Your task to perform on an android device: Clear the cart on amazon. Add beats solo 3 to the cart on amazon Image 0: 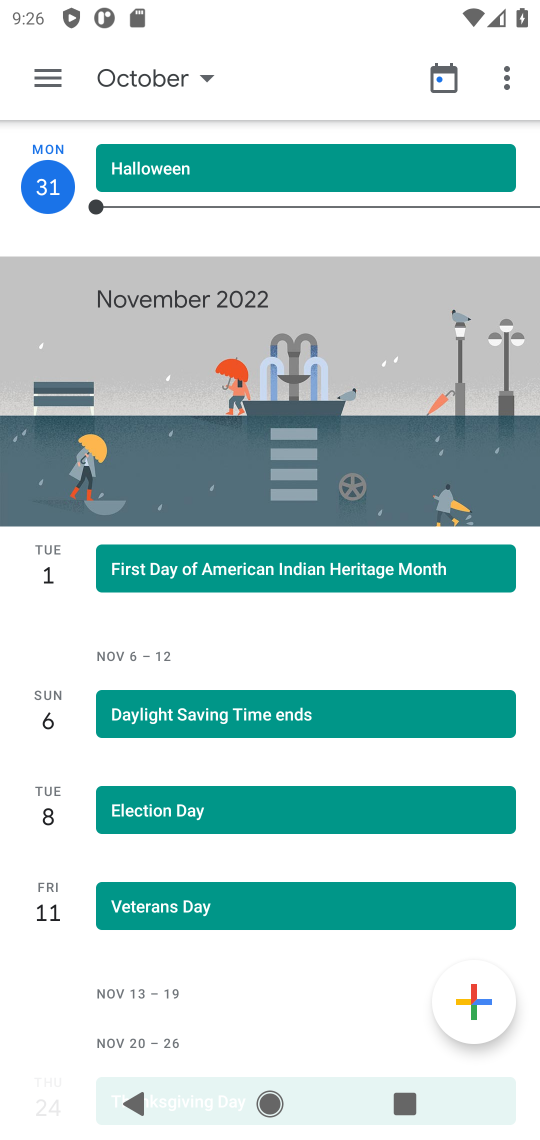
Step 0: press home button
Your task to perform on an android device: Clear the cart on amazon. Add beats solo 3 to the cart on amazon Image 1: 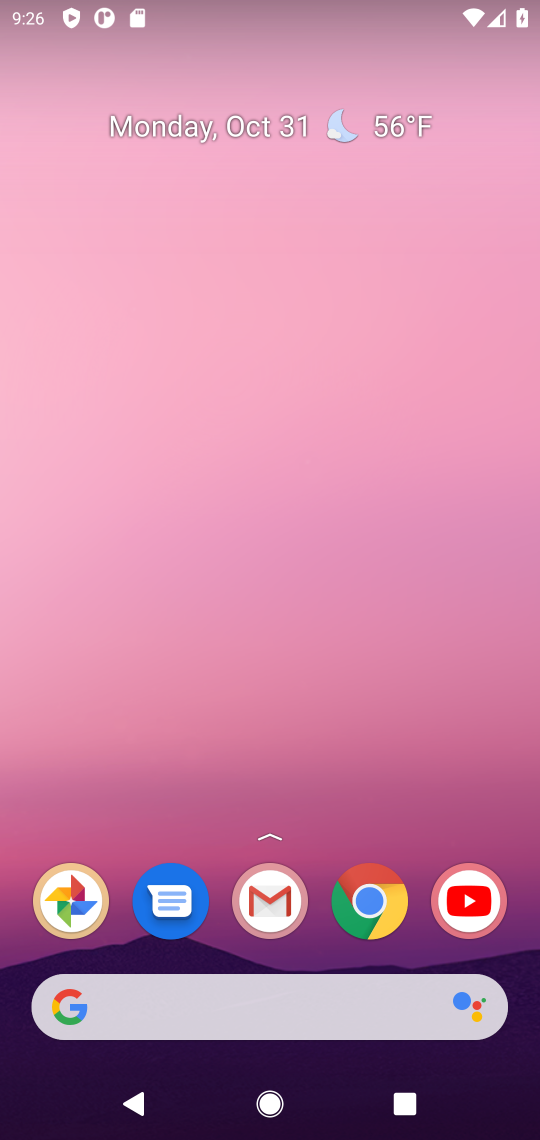
Step 1: drag from (218, 739) to (193, 351)
Your task to perform on an android device: Clear the cart on amazon. Add beats solo 3 to the cart on amazon Image 2: 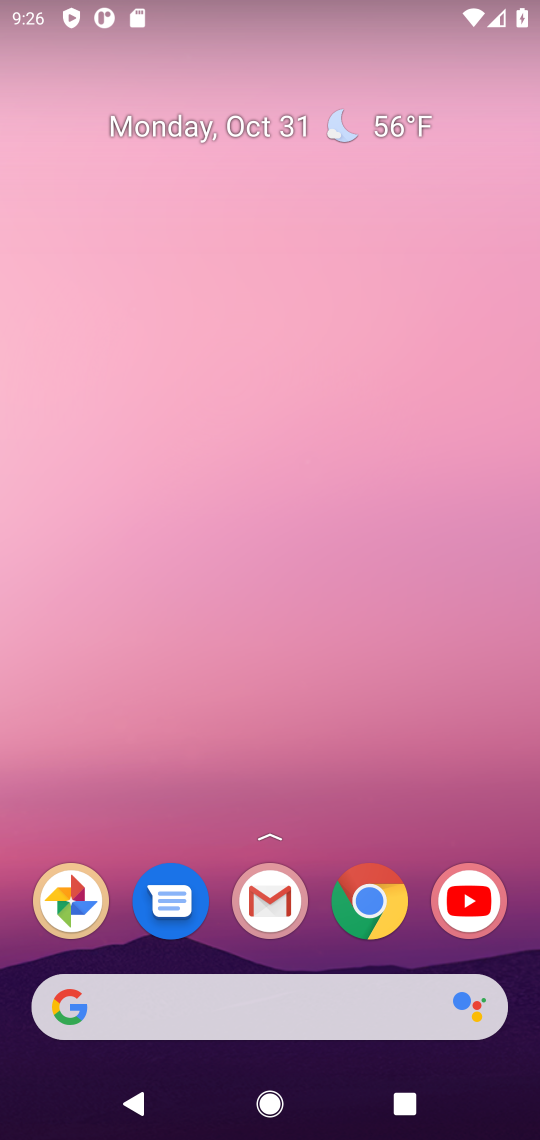
Step 2: drag from (209, 956) to (152, 285)
Your task to perform on an android device: Clear the cart on amazon. Add beats solo 3 to the cart on amazon Image 3: 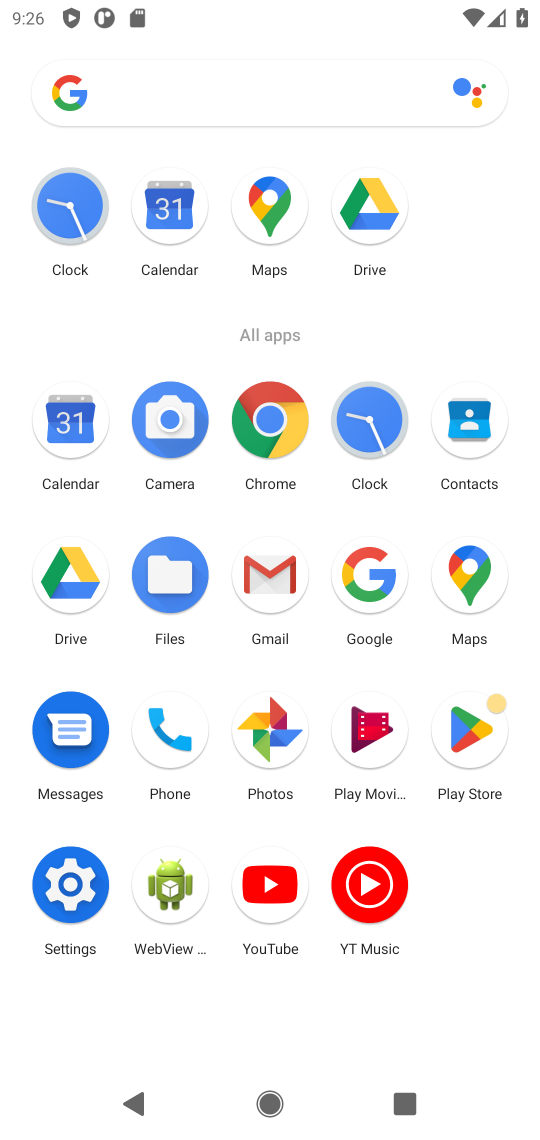
Step 3: click (373, 555)
Your task to perform on an android device: Clear the cart on amazon. Add beats solo 3 to the cart on amazon Image 4: 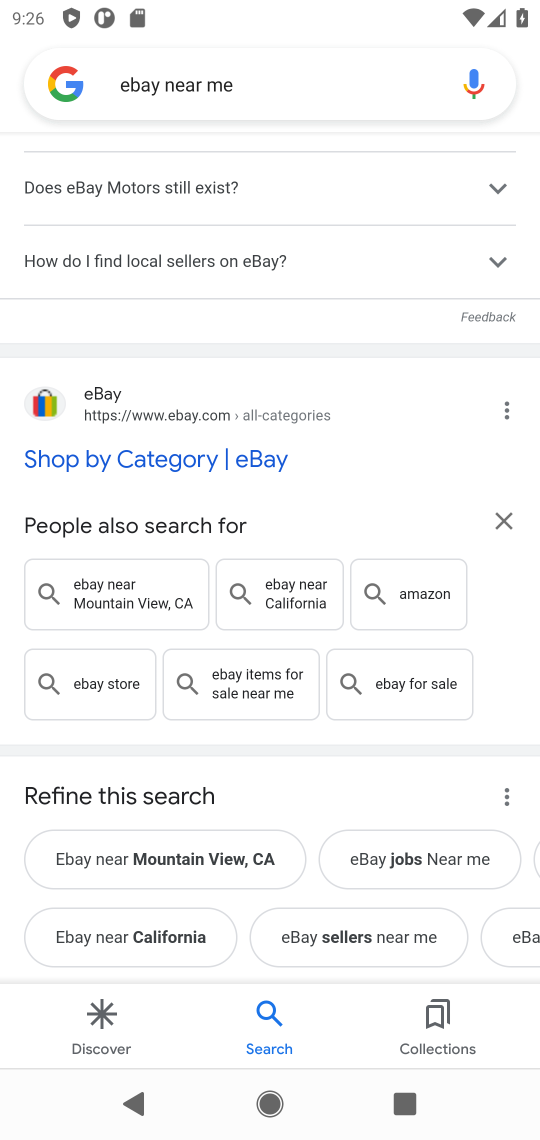
Step 4: click (179, 88)
Your task to perform on an android device: Clear the cart on amazon. Add beats solo 3 to the cart on amazon Image 5: 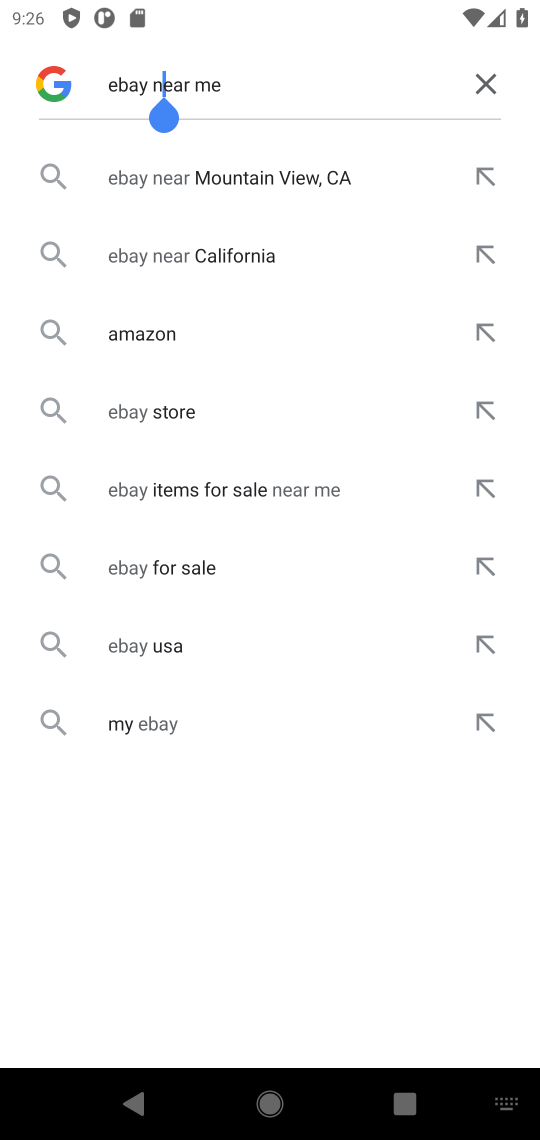
Step 5: click (467, 80)
Your task to perform on an android device: Clear the cart on amazon. Add beats solo 3 to the cart on amazon Image 6: 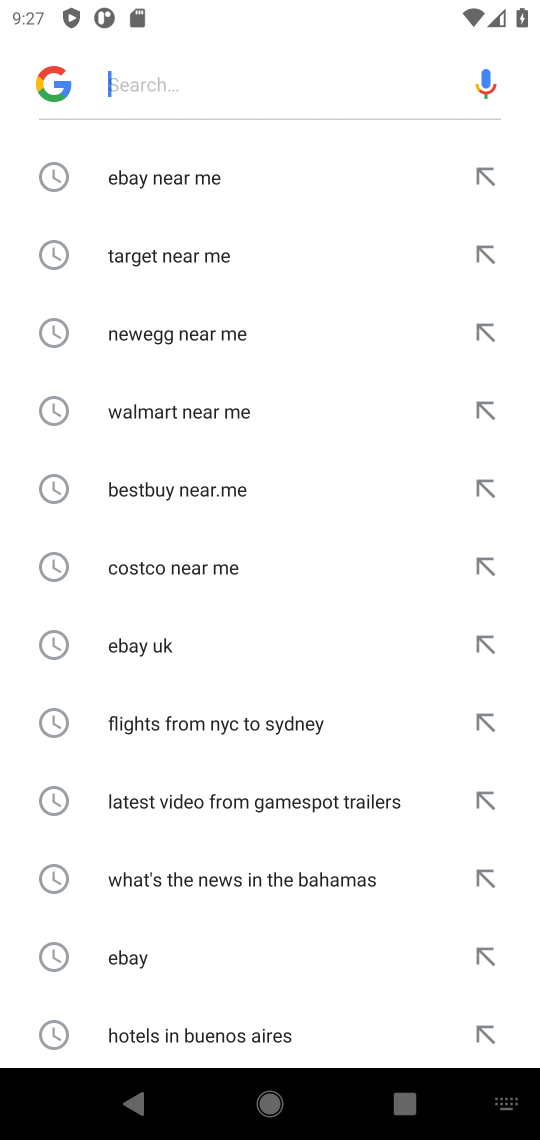
Step 6: click (183, 79)
Your task to perform on an android device: Clear the cart on amazon. Add beats solo 3 to the cart on amazon Image 7: 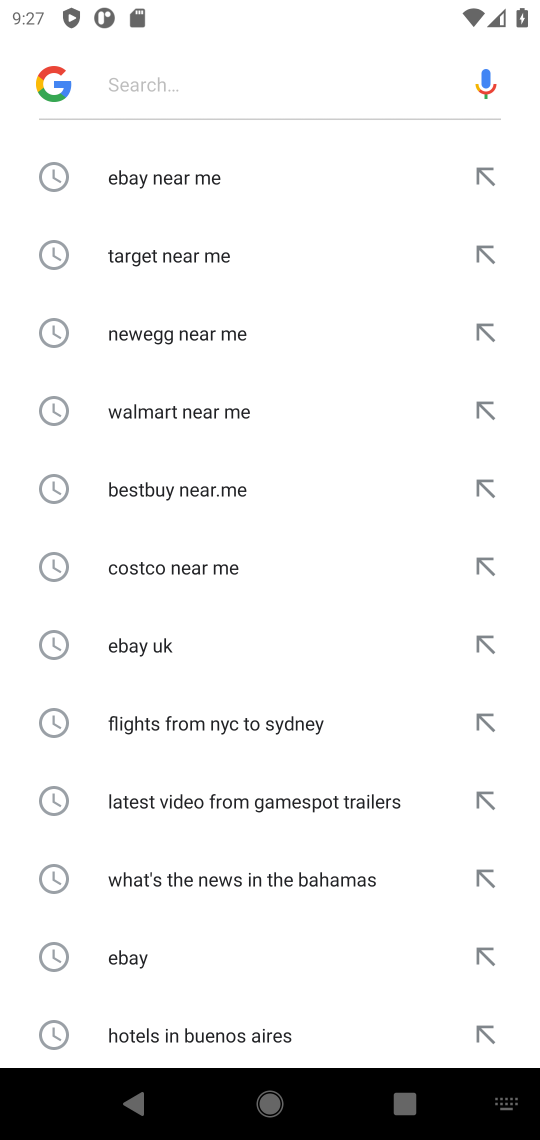
Step 7: type "amazon "
Your task to perform on an android device: Clear the cart on amazon. Add beats solo 3 to the cart on amazon Image 8: 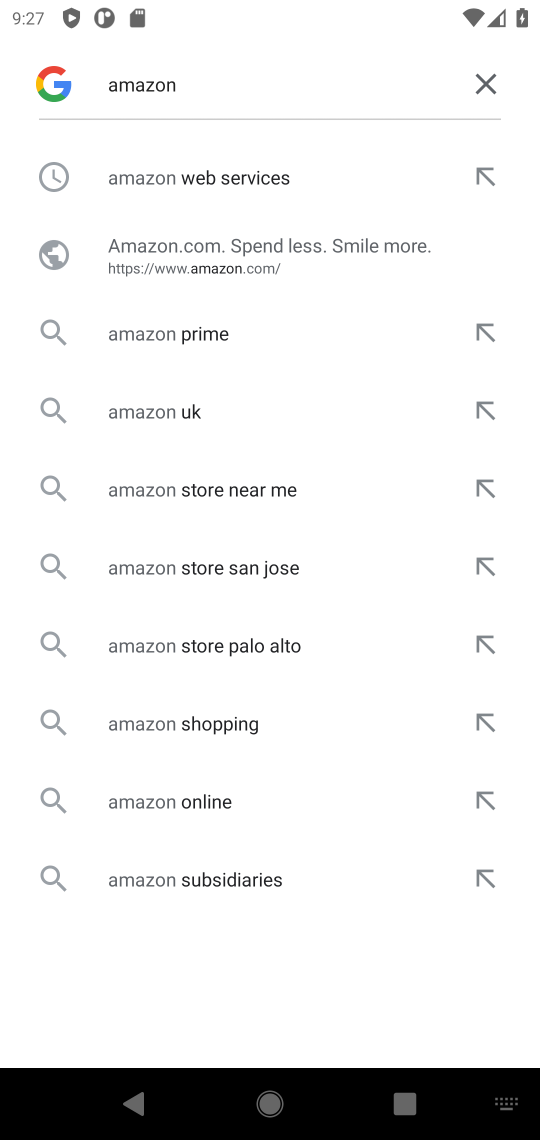
Step 8: click (142, 173)
Your task to perform on an android device: Clear the cart on amazon. Add beats solo 3 to the cart on amazon Image 9: 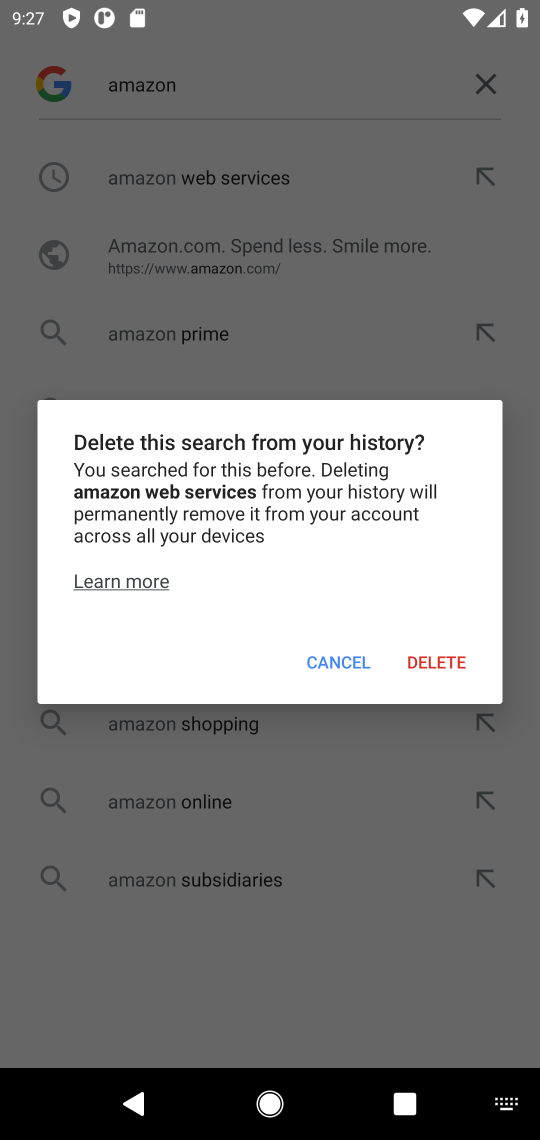
Step 9: click (328, 665)
Your task to perform on an android device: Clear the cart on amazon. Add beats solo 3 to the cart on amazon Image 10: 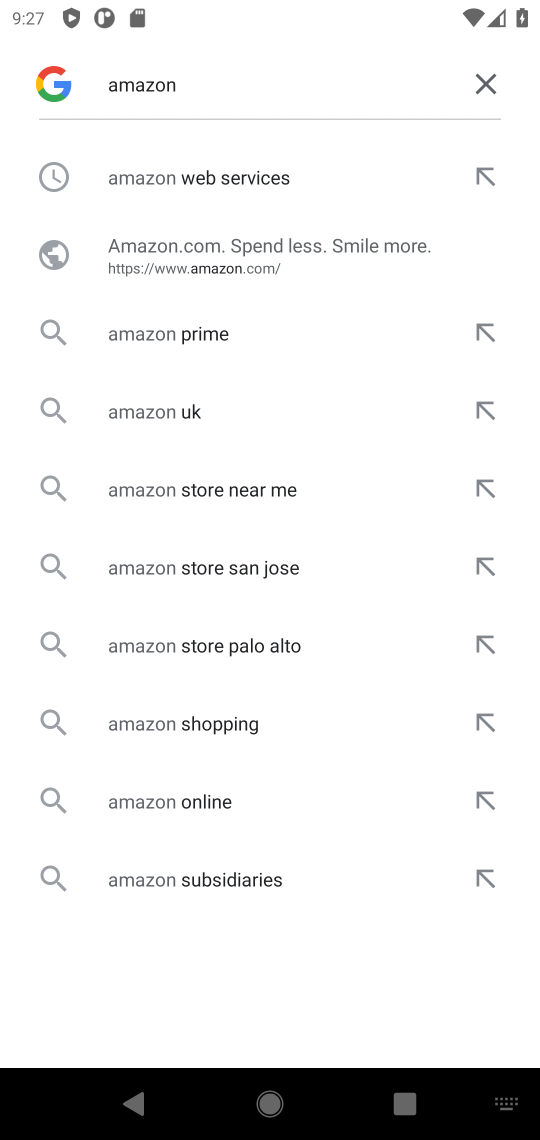
Step 10: click (178, 416)
Your task to perform on an android device: Clear the cart on amazon. Add beats solo 3 to the cart on amazon Image 11: 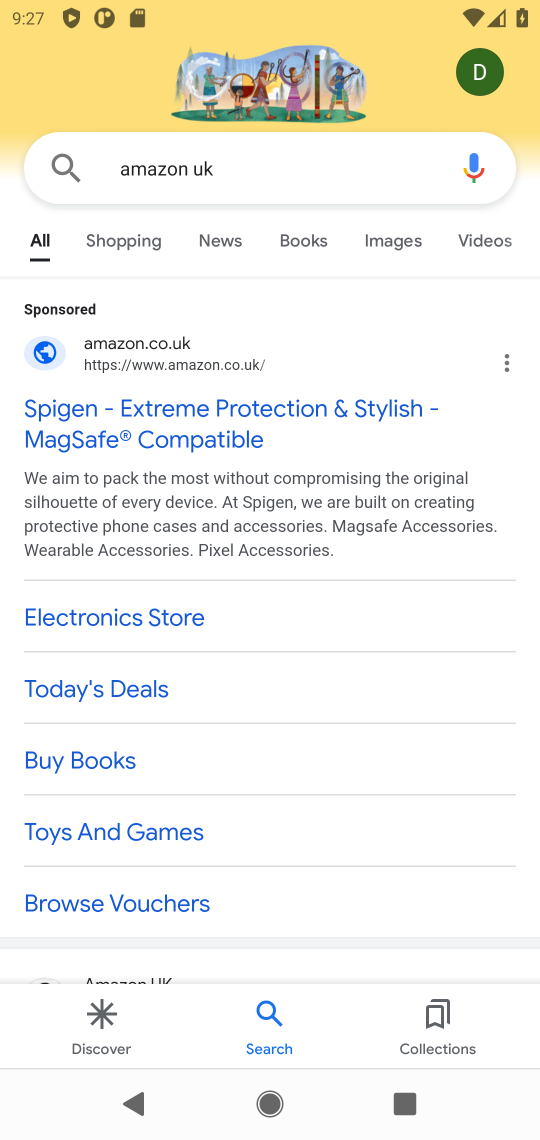
Step 11: drag from (328, 866) to (328, 231)
Your task to perform on an android device: Clear the cart on amazon. Add beats solo 3 to the cart on amazon Image 12: 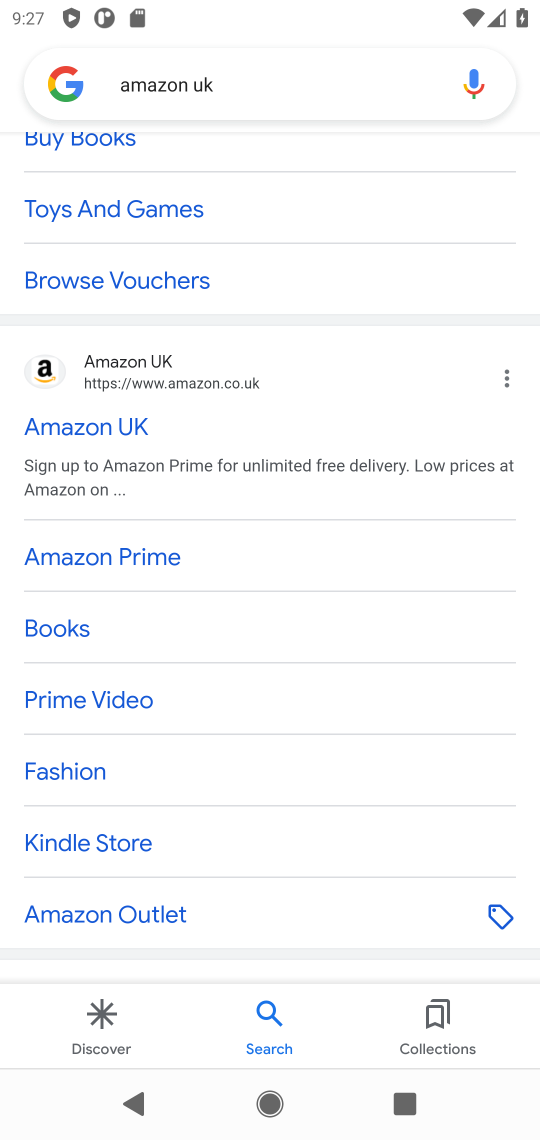
Step 12: click (38, 357)
Your task to perform on an android device: Clear the cart on amazon. Add beats solo 3 to the cart on amazon Image 13: 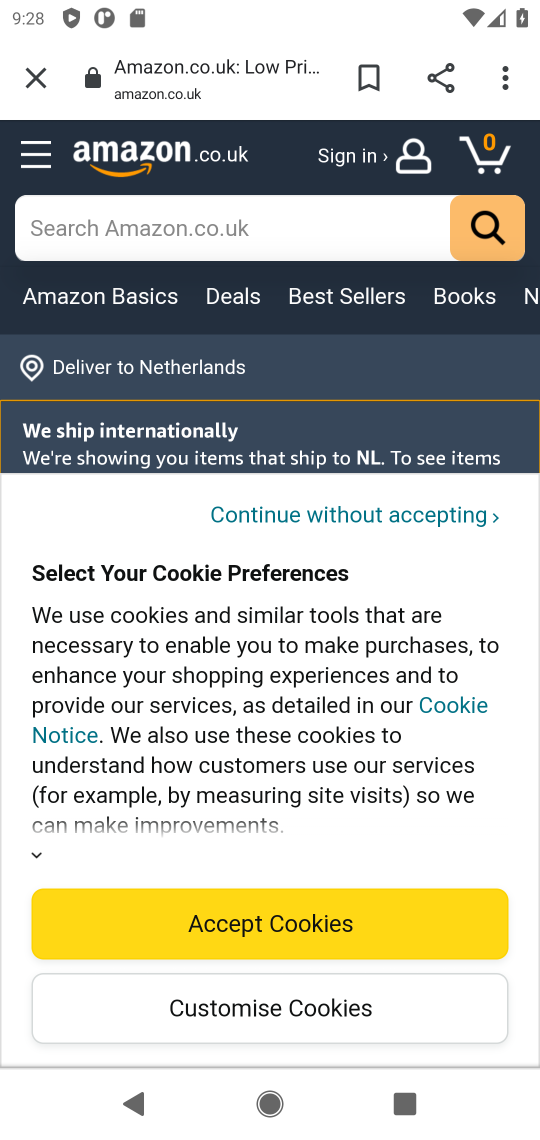
Step 13: click (264, 989)
Your task to perform on an android device: Clear the cart on amazon. Add beats solo 3 to the cart on amazon Image 14: 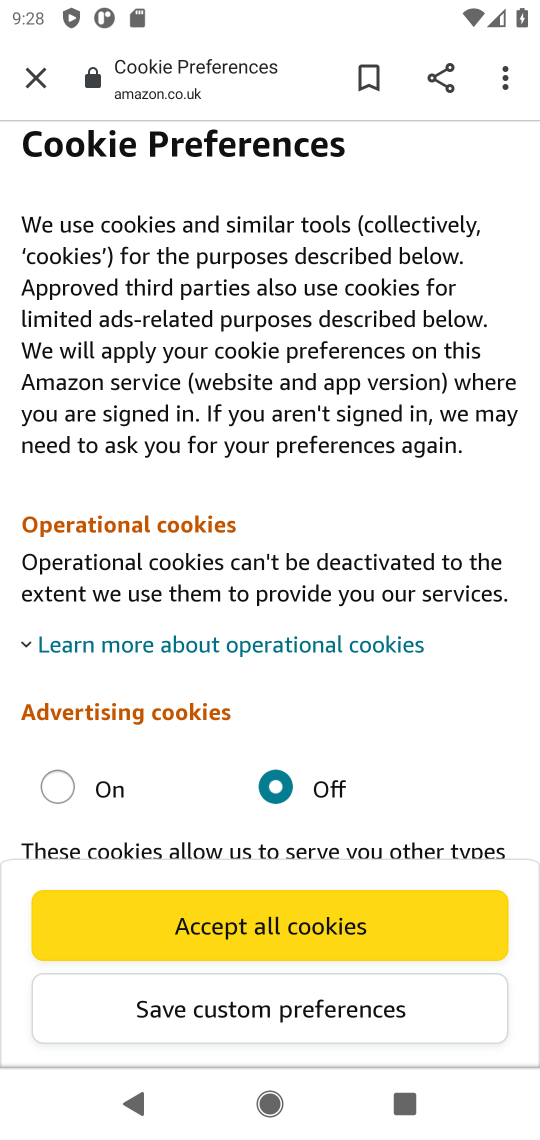
Step 14: click (35, 87)
Your task to perform on an android device: Clear the cart on amazon. Add beats solo 3 to the cart on amazon Image 15: 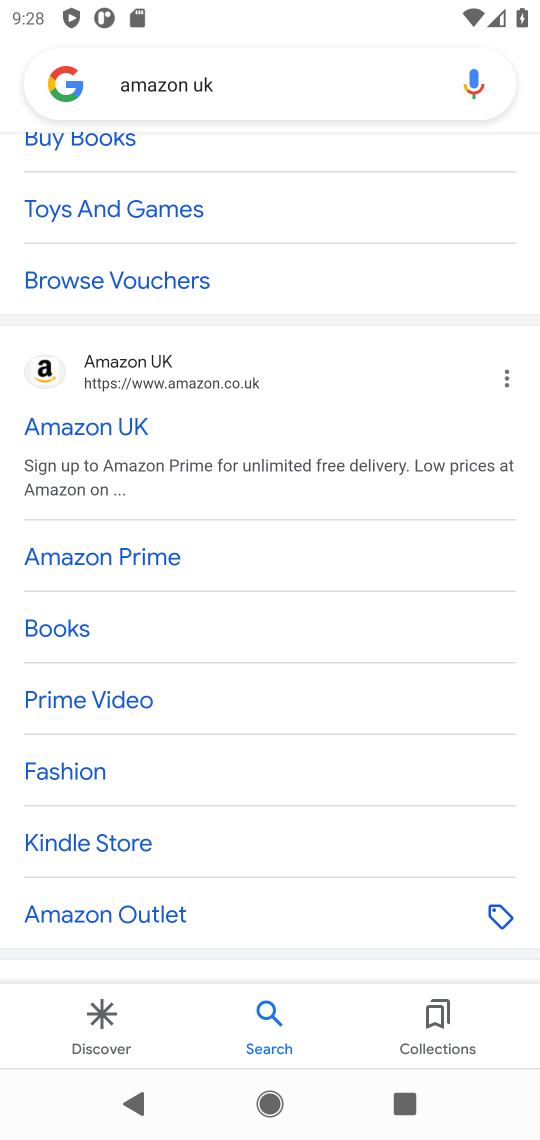
Step 15: click (45, 367)
Your task to perform on an android device: Clear the cart on amazon. Add beats solo 3 to the cart on amazon Image 16: 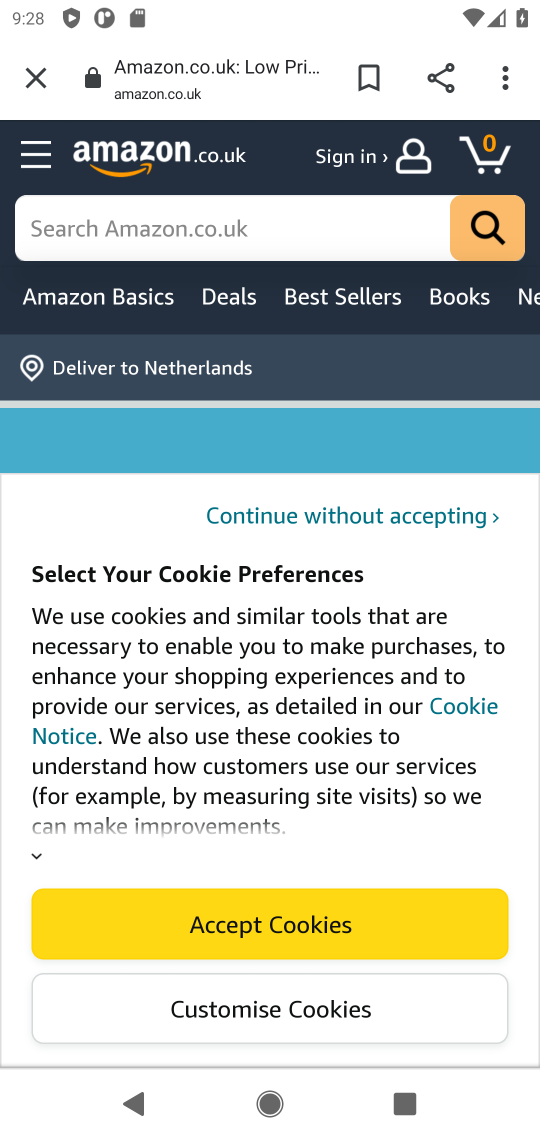
Step 16: click (259, 216)
Your task to perform on an android device: Clear the cart on amazon. Add beats solo 3 to the cart on amazon Image 17: 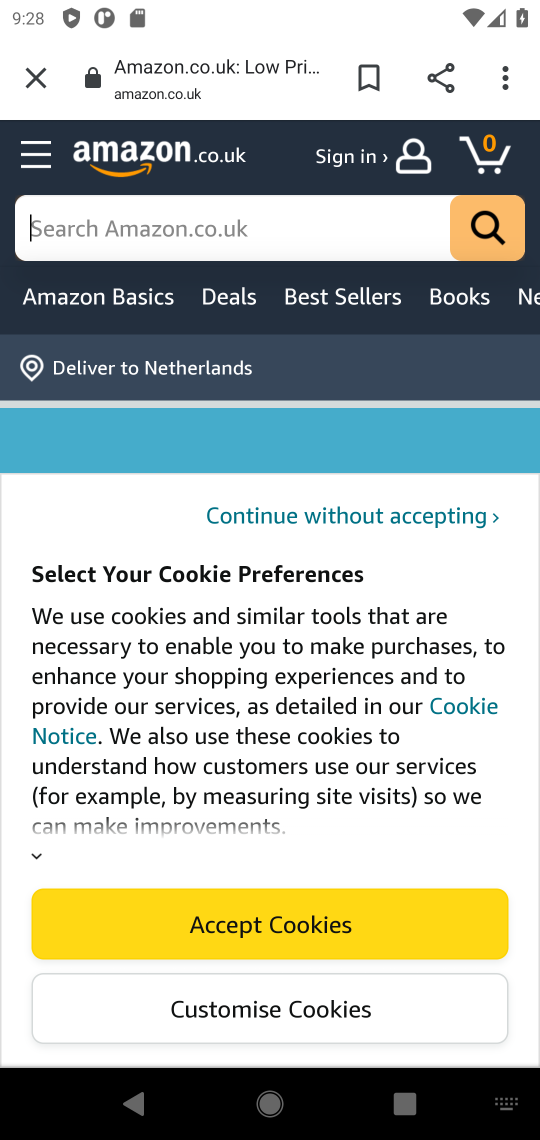
Step 17: click (198, 233)
Your task to perform on an android device: Clear the cart on amazon. Add beats solo 3 to the cart on amazon Image 18: 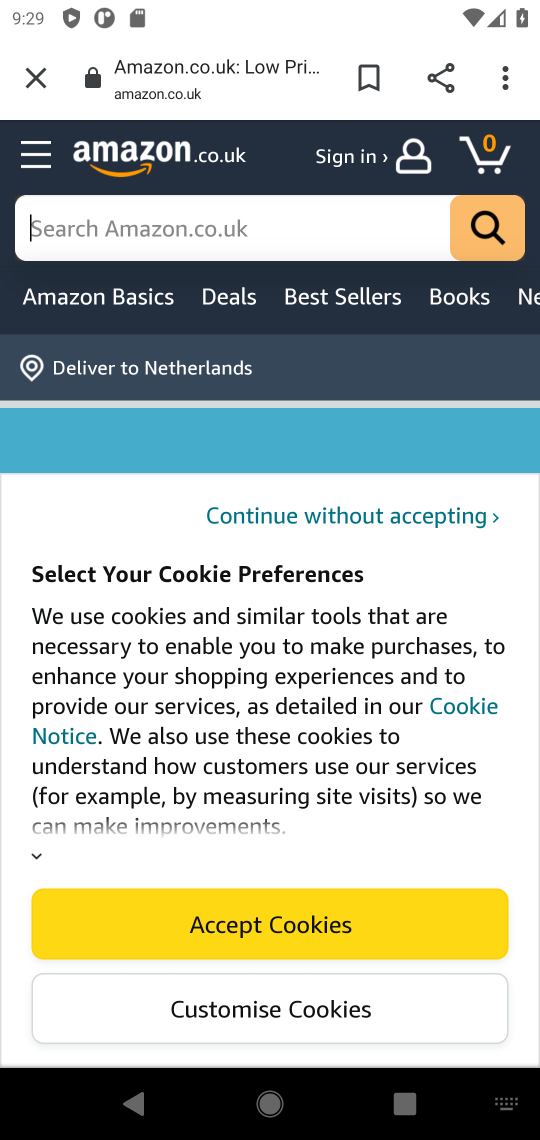
Step 18: type " beats solo 3 "
Your task to perform on an android device: Clear the cart on amazon. Add beats solo 3 to the cart on amazon Image 19: 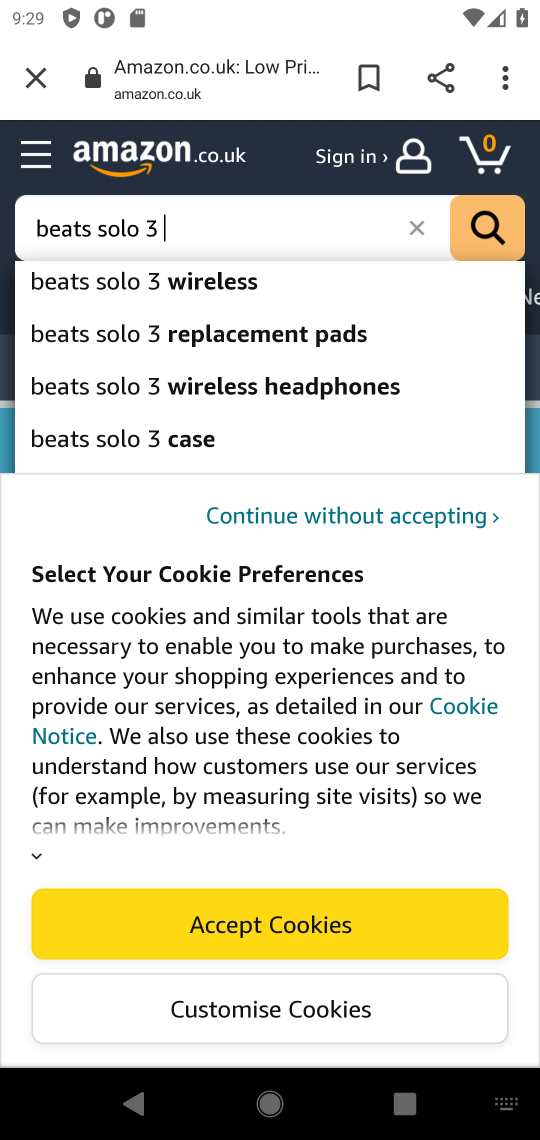
Step 19: click (183, 271)
Your task to perform on an android device: Clear the cart on amazon. Add beats solo 3 to the cart on amazon Image 20: 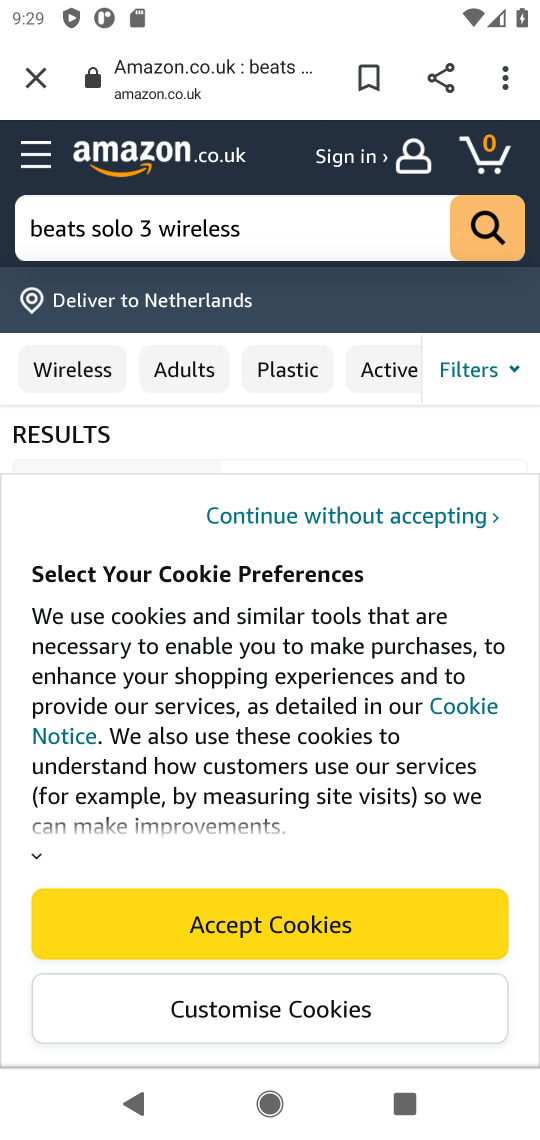
Step 20: click (313, 907)
Your task to perform on an android device: Clear the cart on amazon. Add beats solo 3 to the cart on amazon Image 21: 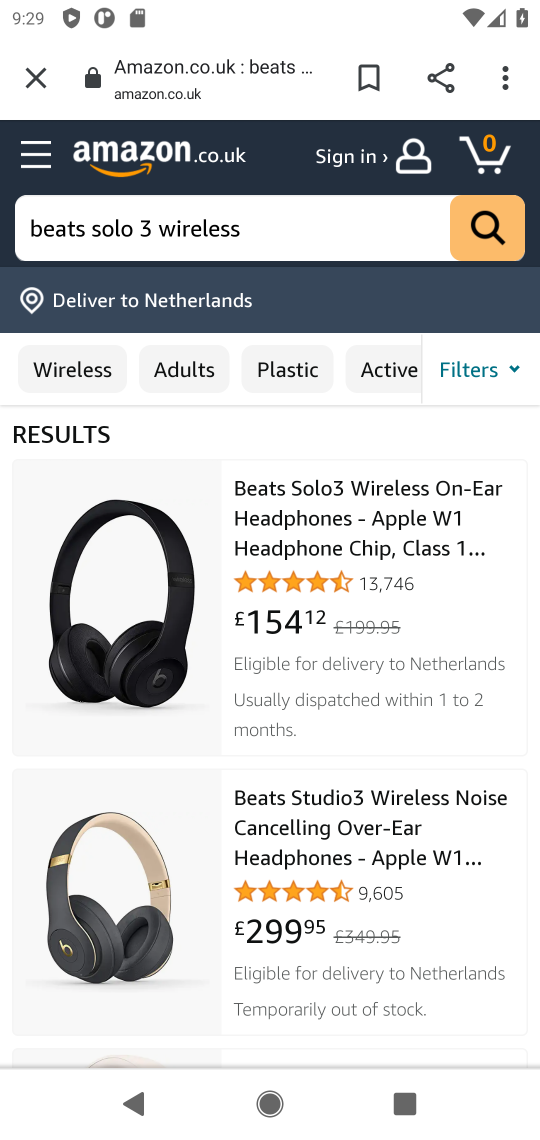
Step 21: click (333, 533)
Your task to perform on an android device: Clear the cart on amazon. Add beats solo 3 to the cart on amazon Image 22: 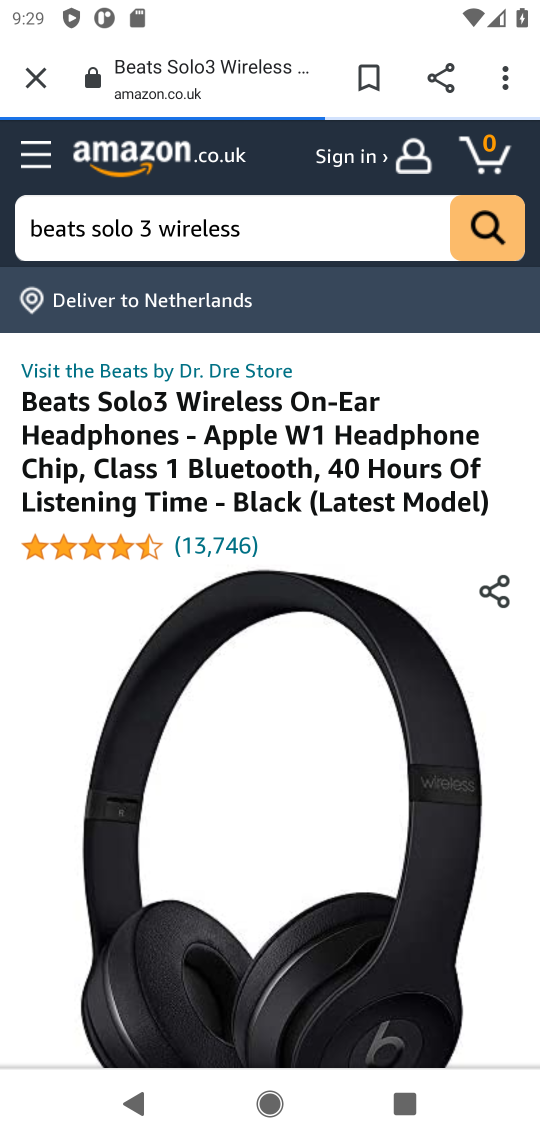
Step 22: drag from (331, 804) to (368, 269)
Your task to perform on an android device: Clear the cart on amazon. Add beats solo 3 to the cart on amazon Image 23: 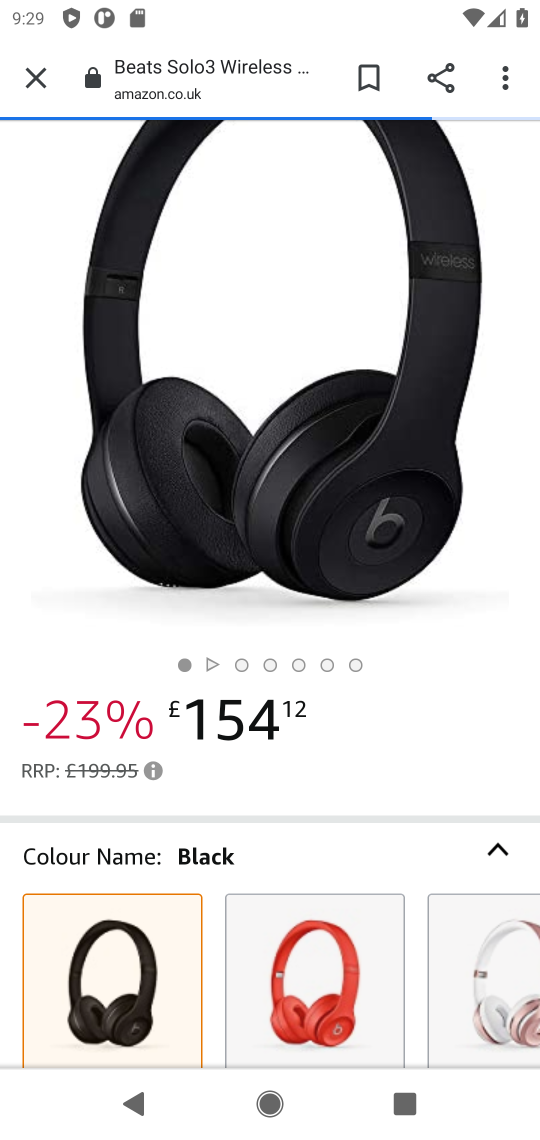
Step 23: drag from (237, 784) to (295, 338)
Your task to perform on an android device: Clear the cart on amazon. Add beats solo 3 to the cart on amazon Image 24: 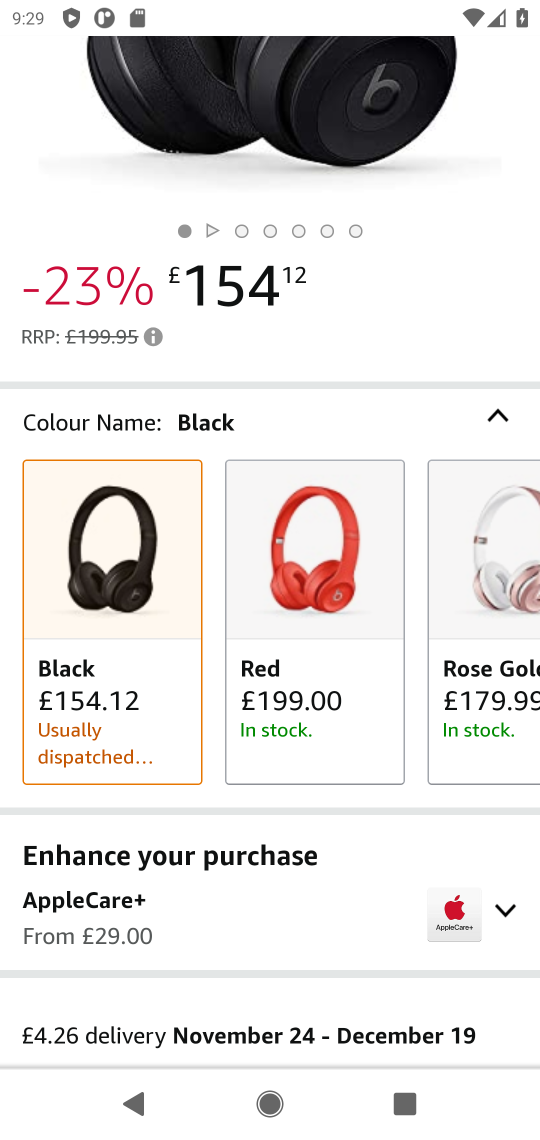
Step 24: drag from (265, 890) to (318, 377)
Your task to perform on an android device: Clear the cart on amazon. Add beats solo 3 to the cart on amazon Image 25: 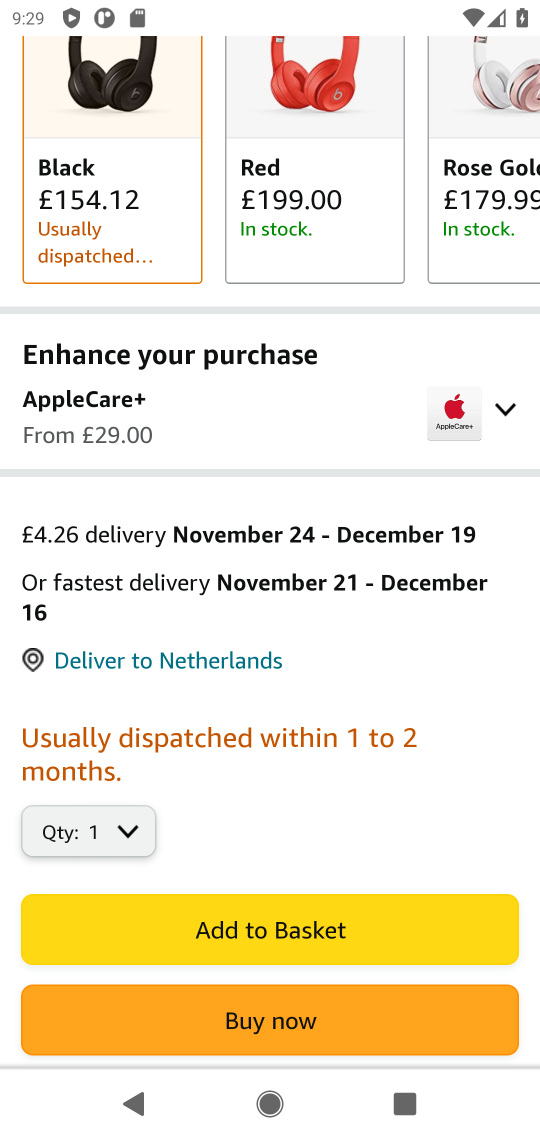
Step 25: click (284, 921)
Your task to perform on an android device: Clear the cart on amazon. Add beats solo 3 to the cart on amazon Image 26: 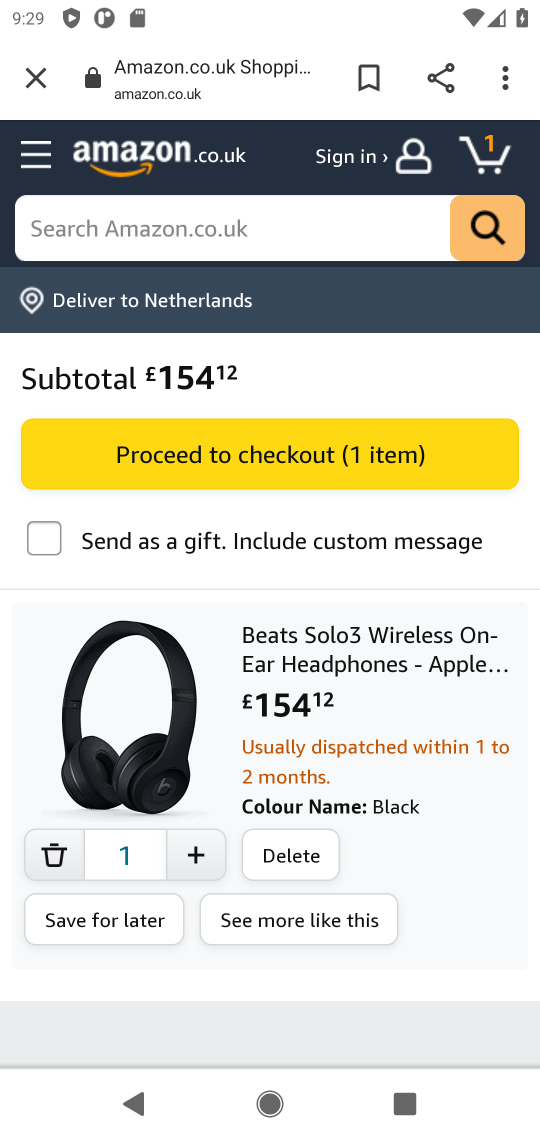
Step 26: task complete